Your task to perform on an android device: Go to privacy settings Image 0: 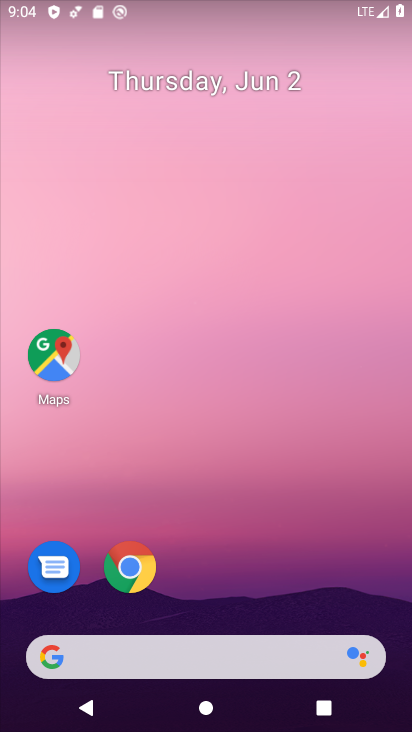
Step 0: drag from (281, 566) to (313, 140)
Your task to perform on an android device: Go to privacy settings Image 1: 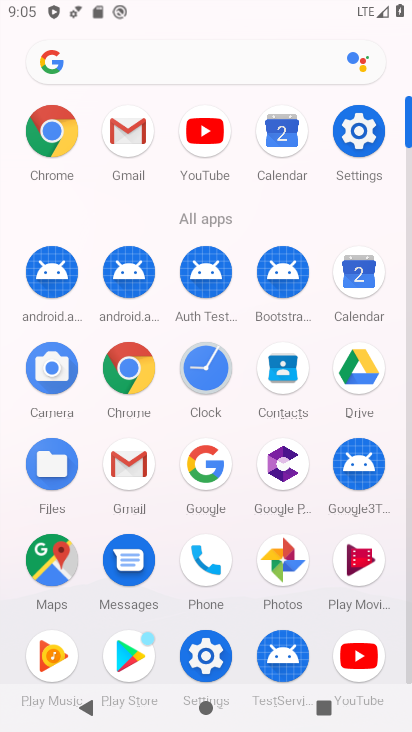
Step 1: click (353, 127)
Your task to perform on an android device: Go to privacy settings Image 2: 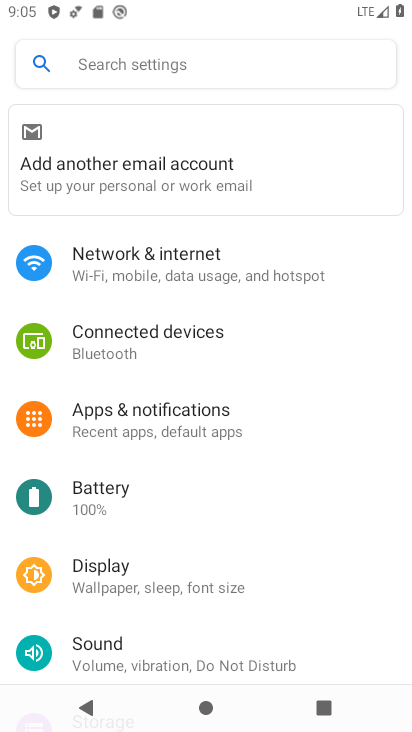
Step 2: drag from (203, 647) to (226, 361)
Your task to perform on an android device: Go to privacy settings Image 3: 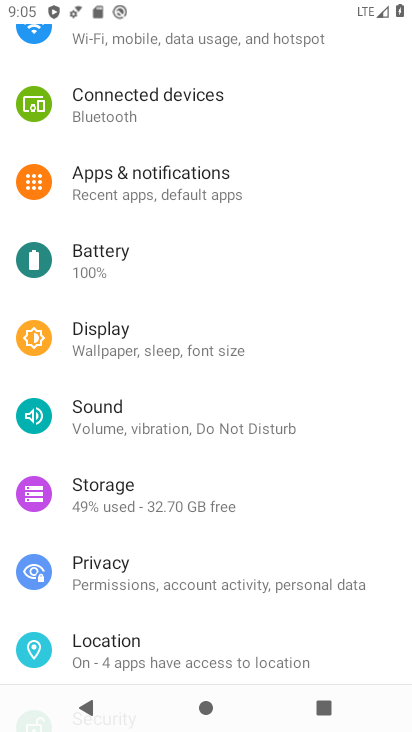
Step 3: click (138, 564)
Your task to perform on an android device: Go to privacy settings Image 4: 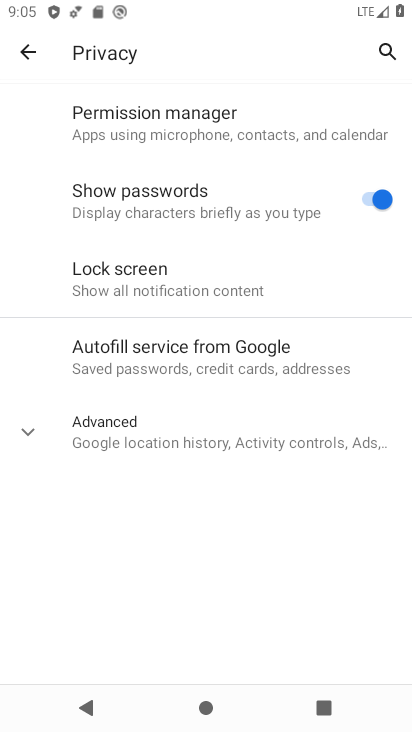
Step 4: task complete